Your task to perform on an android device: Search for vegetarian restaurants on Maps Image 0: 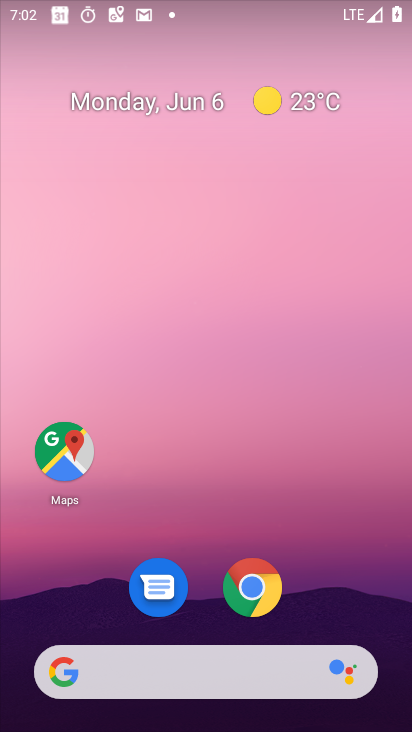
Step 0: drag from (403, 650) to (262, 62)
Your task to perform on an android device: Search for vegetarian restaurants on Maps Image 1: 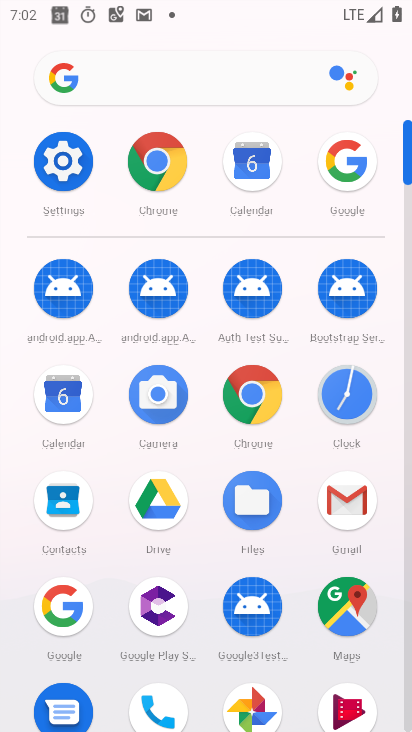
Step 1: click (346, 637)
Your task to perform on an android device: Search for vegetarian restaurants on Maps Image 2: 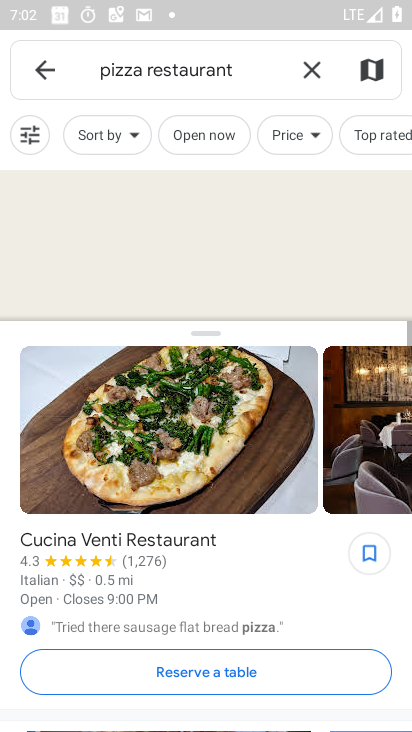
Step 2: click (317, 74)
Your task to perform on an android device: Search for vegetarian restaurants on Maps Image 3: 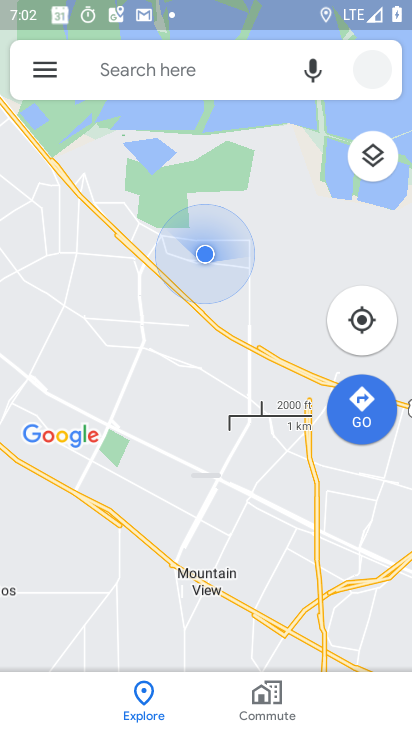
Step 3: click (177, 75)
Your task to perform on an android device: Search for vegetarian restaurants on Maps Image 4: 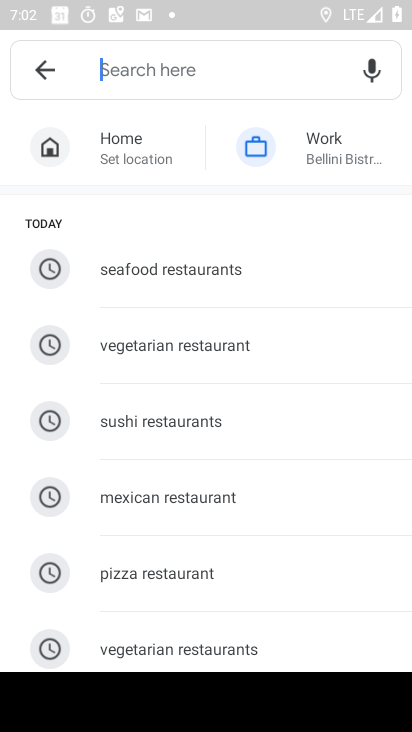
Step 4: click (189, 336)
Your task to perform on an android device: Search for vegetarian restaurants on Maps Image 5: 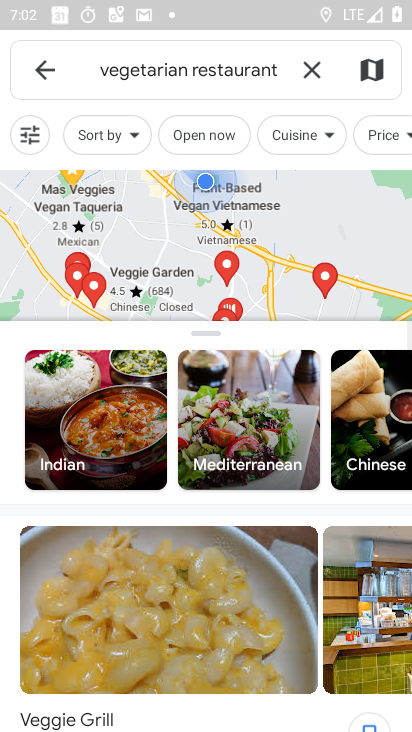
Step 5: task complete